Your task to perform on an android device: turn off priority inbox in the gmail app Image 0: 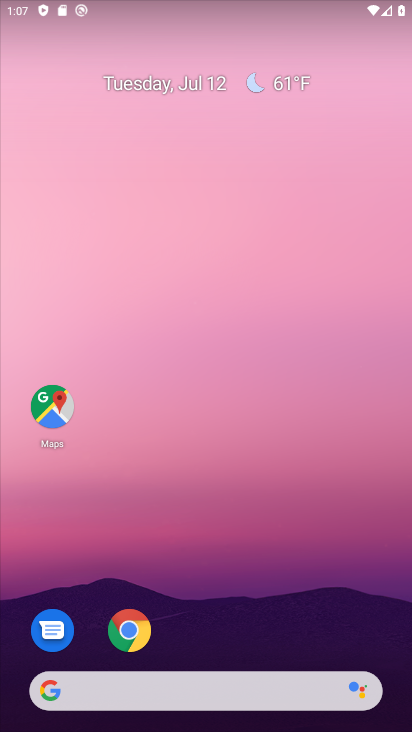
Step 0: drag from (215, 646) to (226, 147)
Your task to perform on an android device: turn off priority inbox in the gmail app Image 1: 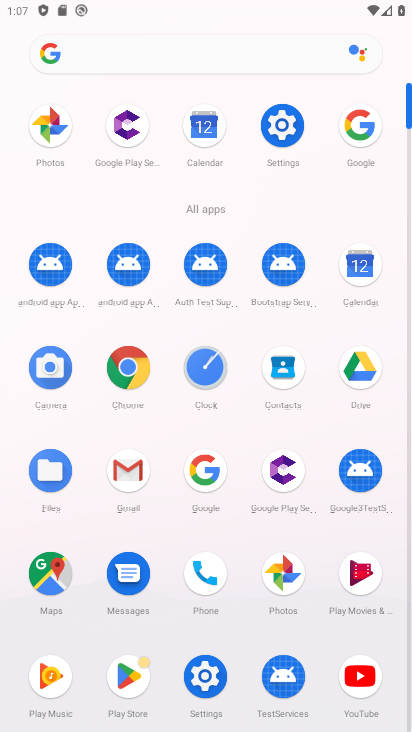
Step 1: click (139, 477)
Your task to perform on an android device: turn off priority inbox in the gmail app Image 2: 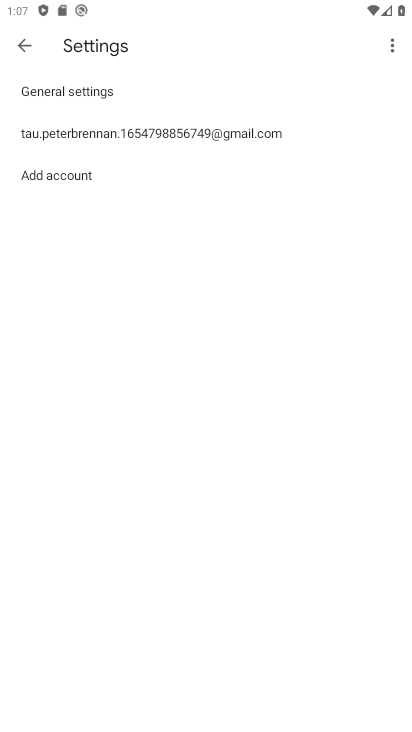
Step 2: click (70, 130)
Your task to perform on an android device: turn off priority inbox in the gmail app Image 3: 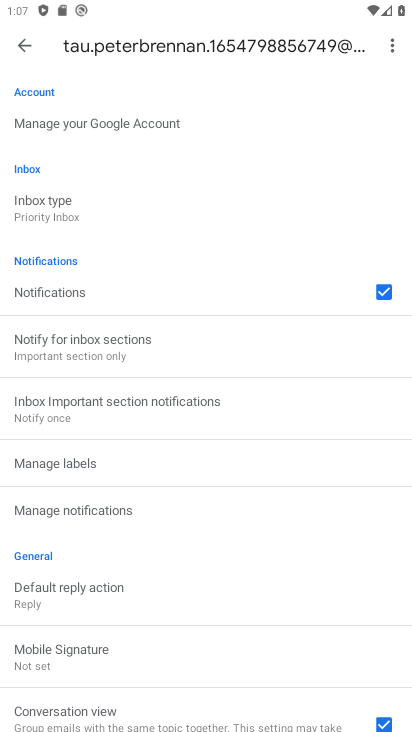
Step 3: click (112, 213)
Your task to perform on an android device: turn off priority inbox in the gmail app Image 4: 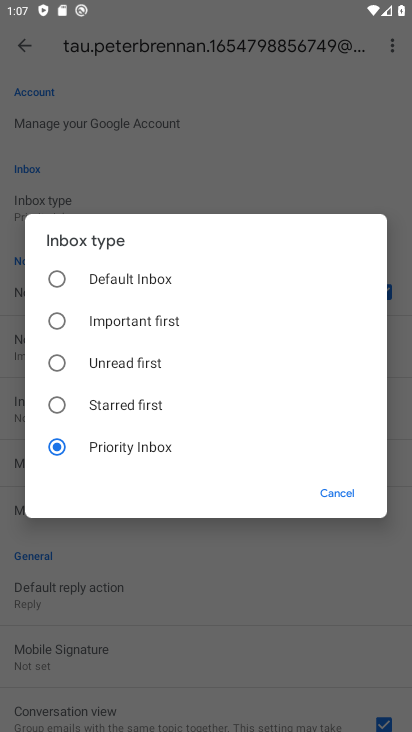
Step 4: click (113, 270)
Your task to perform on an android device: turn off priority inbox in the gmail app Image 5: 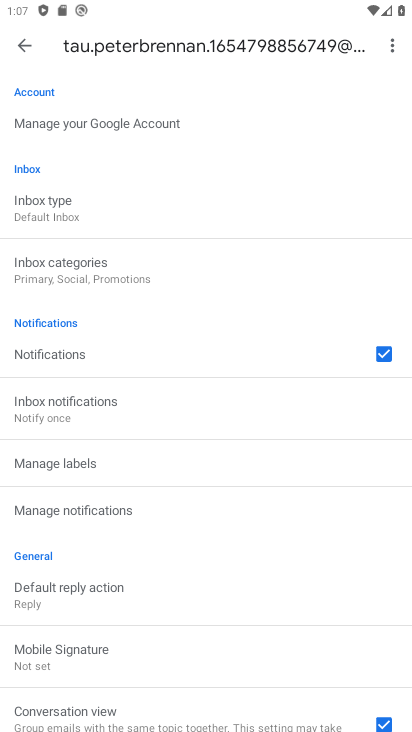
Step 5: task complete